Your task to perform on an android device: Search for "usb-a" on costco.com, select the first entry, and add it to the cart. Image 0: 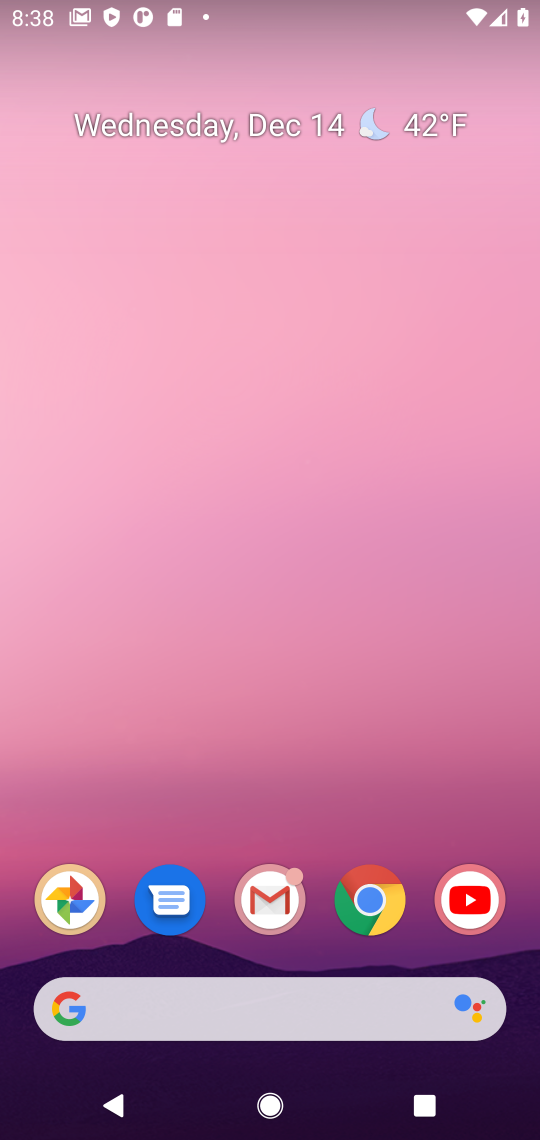
Step 0: click (388, 898)
Your task to perform on an android device: Search for "usb-a" on costco.com, select the first entry, and add it to the cart. Image 1: 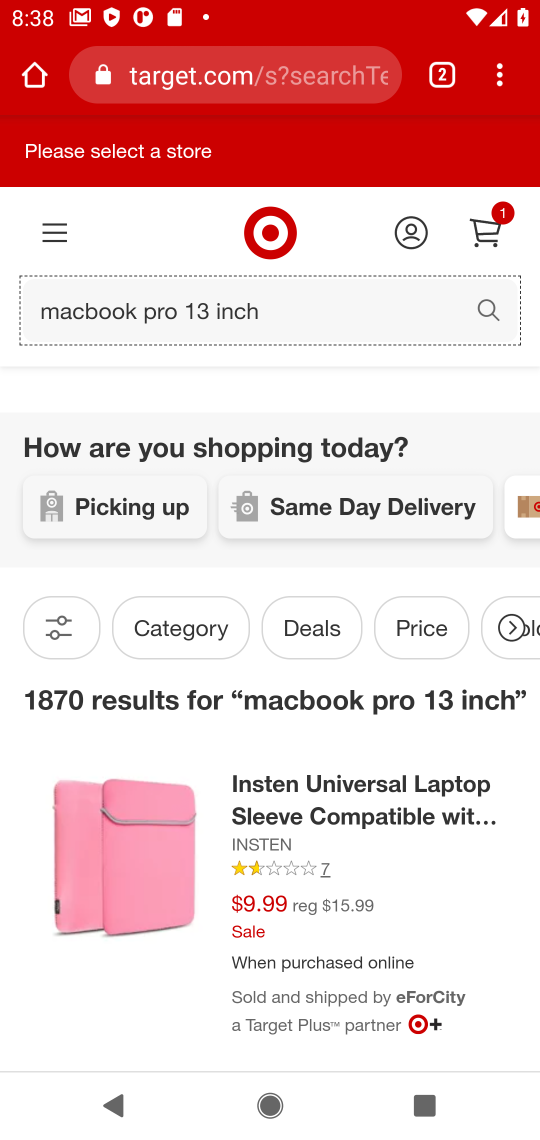
Step 1: click (317, 82)
Your task to perform on an android device: Search for "usb-a" on costco.com, select the first entry, and add it to the cart. Image 2: 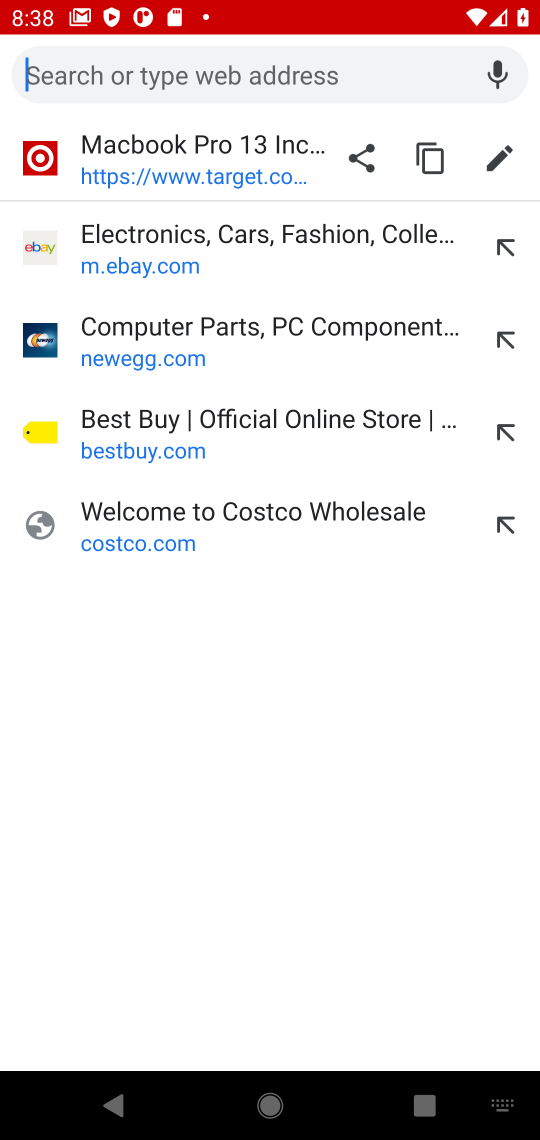
Step 2: click (166, 550)
Your task to perform on an android device: Search for "usb-a" on costco.com, select the first entry, and add it to the cart. Image 3: 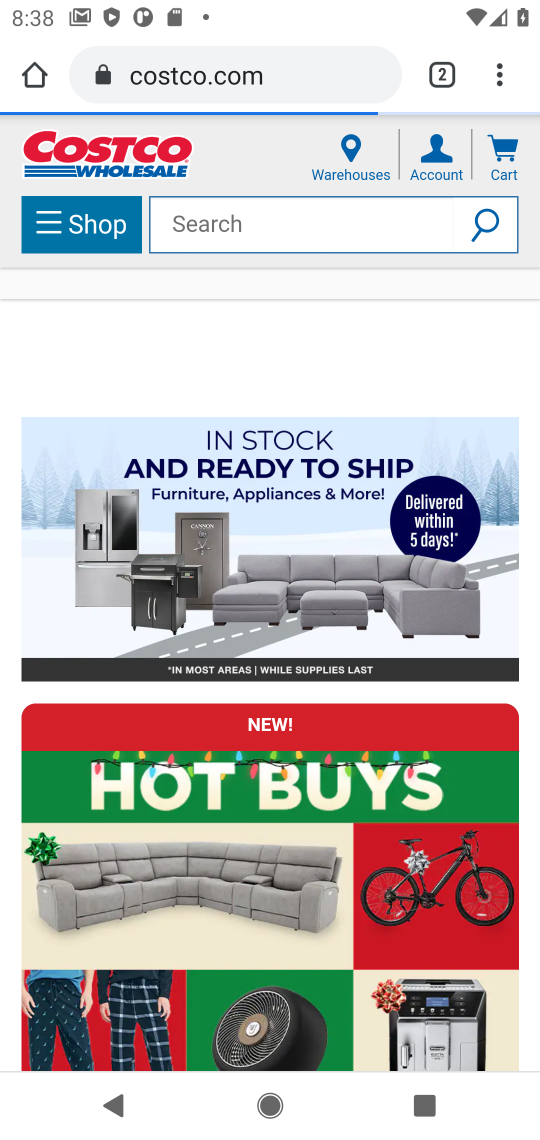
Step 3: click (287, 221)
Your task to perform on an android device: Search for "usb-a" on costco.com, select the first entry, and add it to the cart. Image 4: 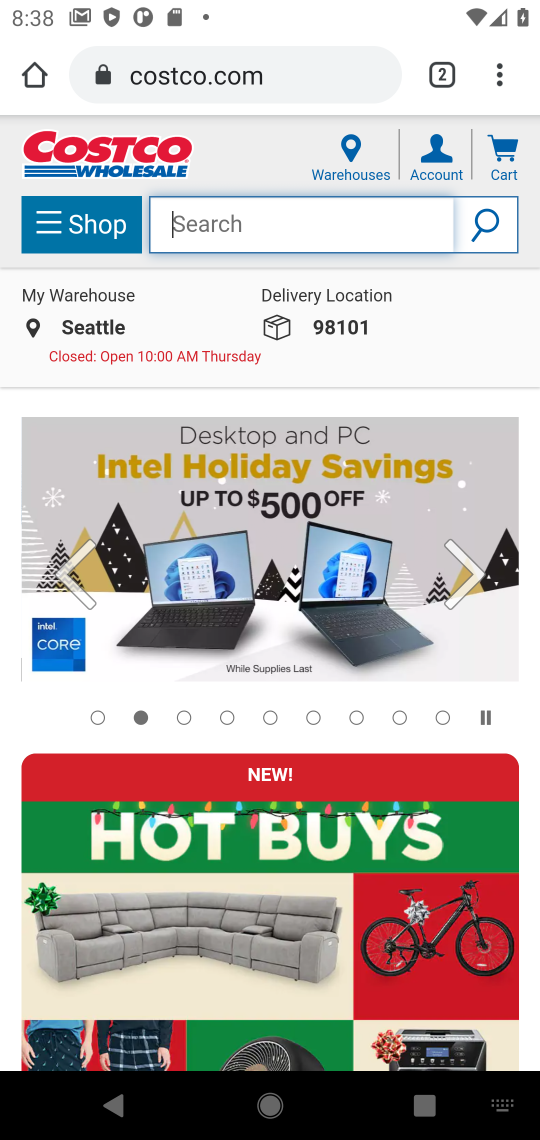
Step 4: type "usb-a"
Your task to perform on an android device: Search for "usb-a" on costco.com, select the first entry, and add it to the cart. Image 5: 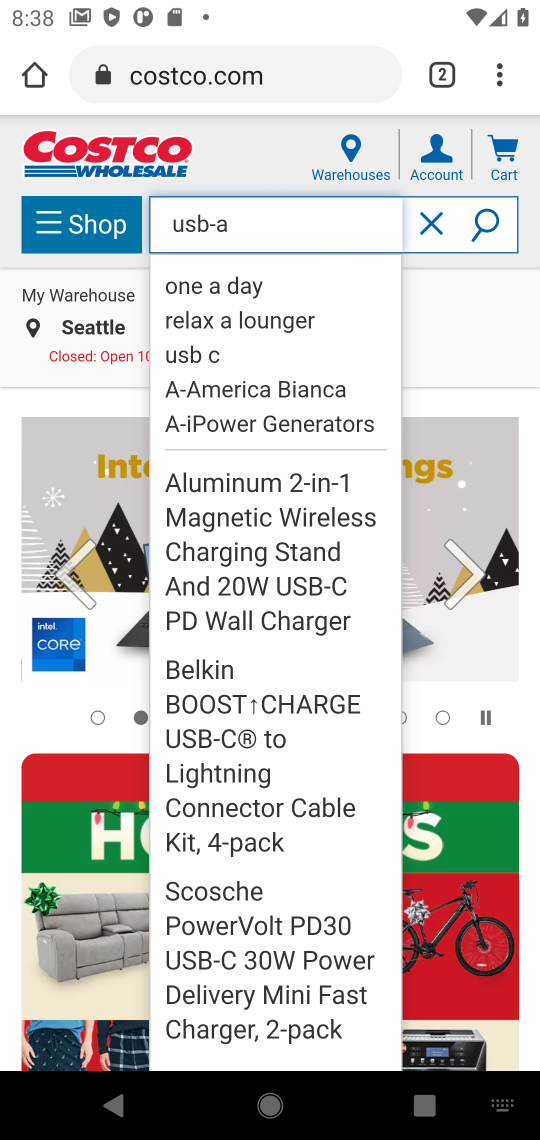
Step 5: click (488, 222)
Your task to perform on an android device: Search for "usb-a" on costco.com, select the first entry, and add it to the cart. Image 6: 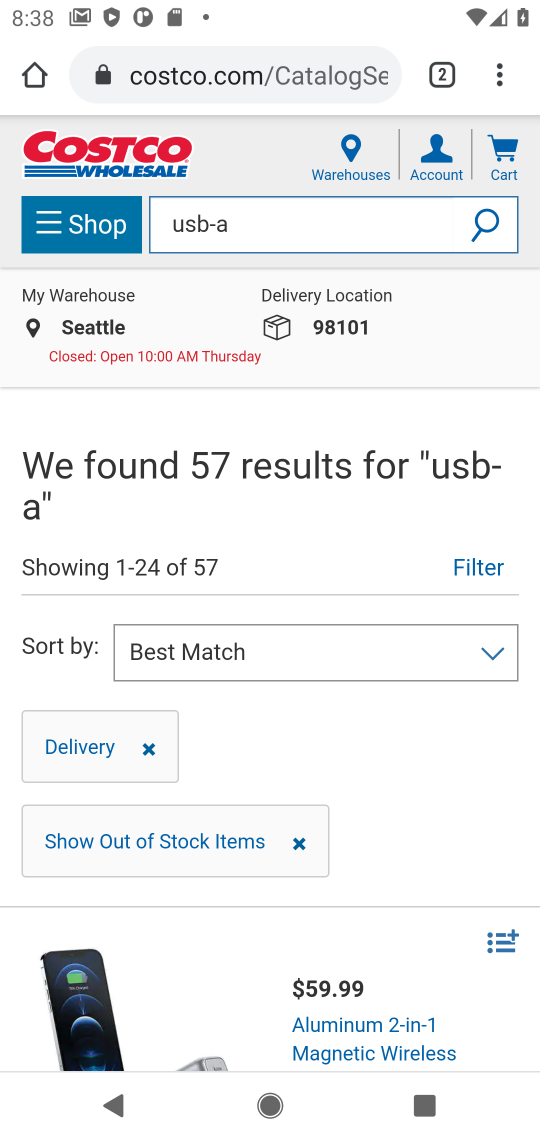
Step 6: task complete